Your task to perform on an android device: Go to battery settings Image 0: 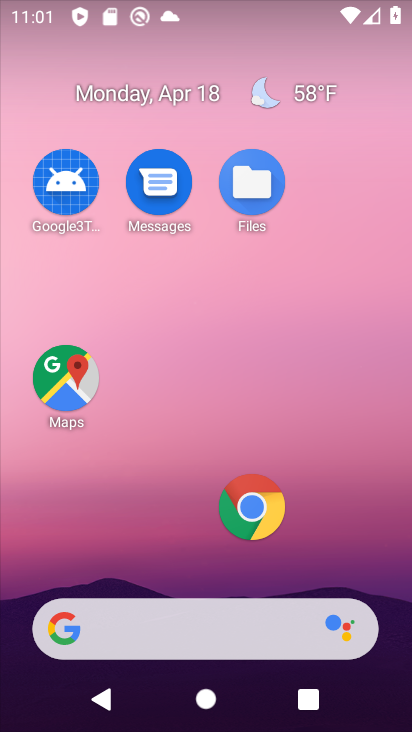
Step 0: drag from (183, 575) to (187, 138)
Your task to perform on an android device: Go to battery settings Image 1: 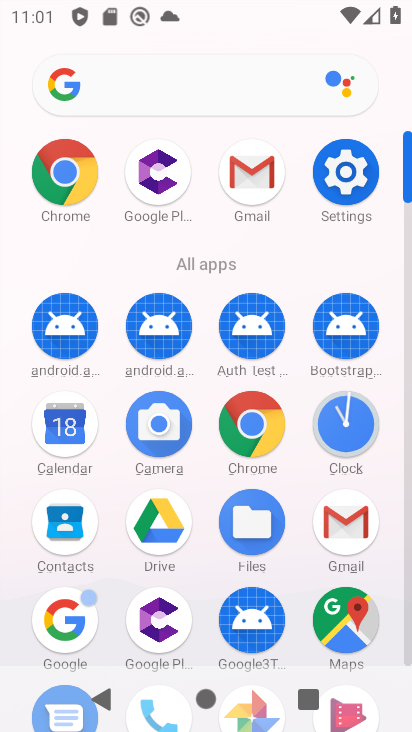
Step 1: click (351, 148)
Your task to perform on an android device: Go to battery settings Image 2: 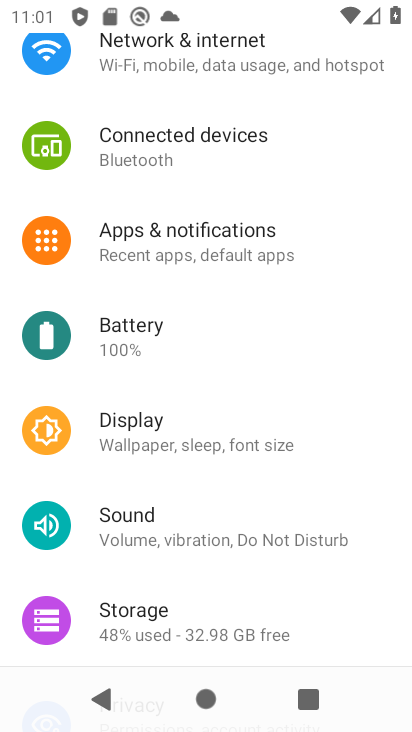
Step 2: click (160, 349)
Your task to perform on an android device: Go to battery settings Image 3: 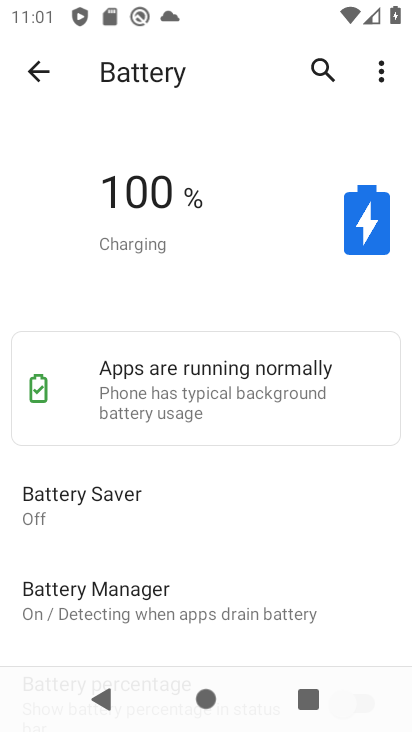
Step 3: task complete